Your task to perform on an android device: Clear the cart on bestbuy. Image 0: 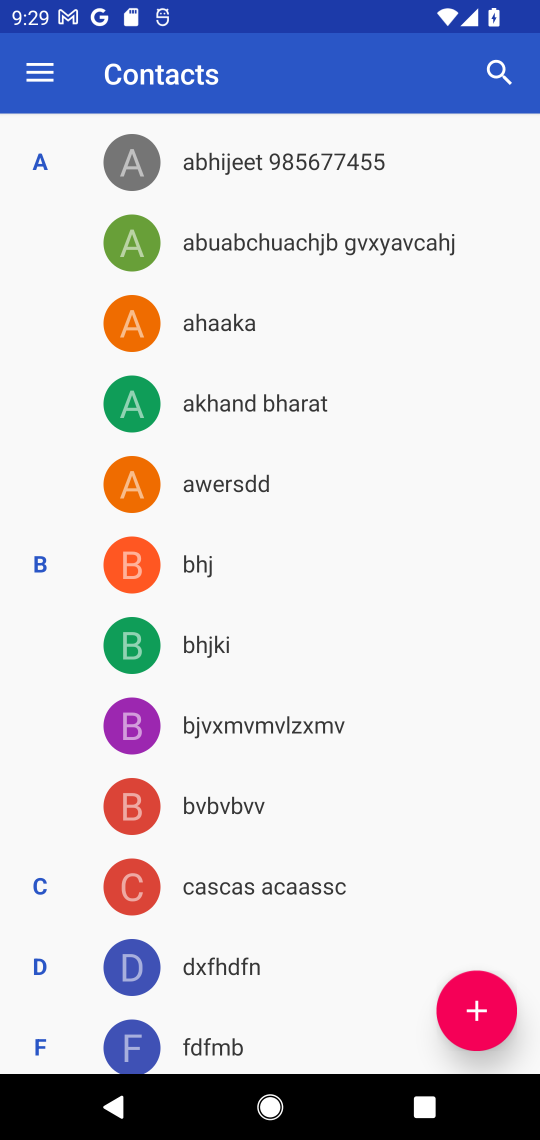
Step 0: press home button
Your task to perform on an android device: Clear the cart on bestbuy. Image 1: 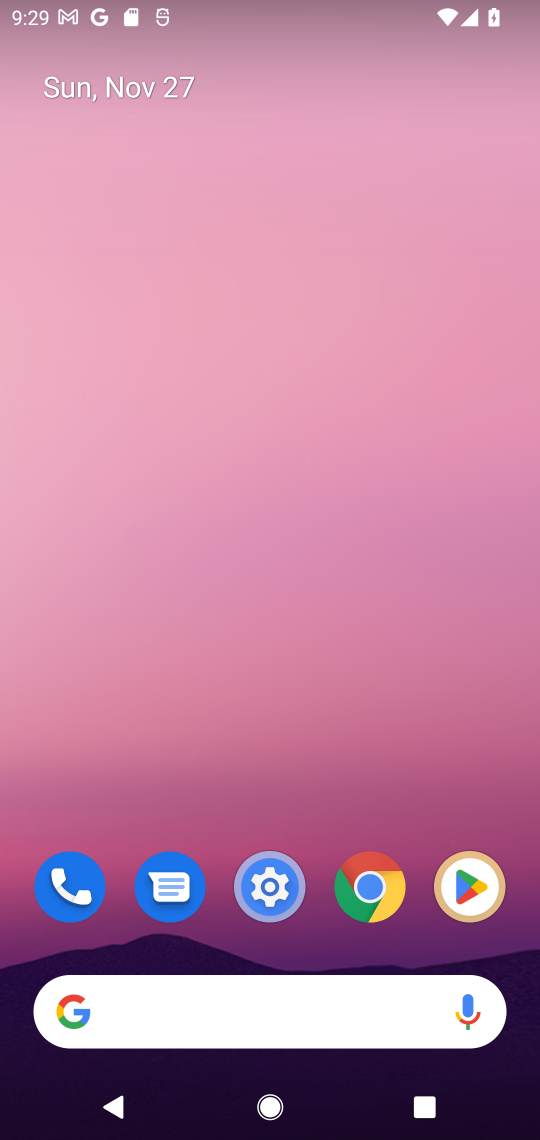
Step 1: click (363, 1012)
Your task to perform on an android device: Clear the cart on bestbuy. Image 2: 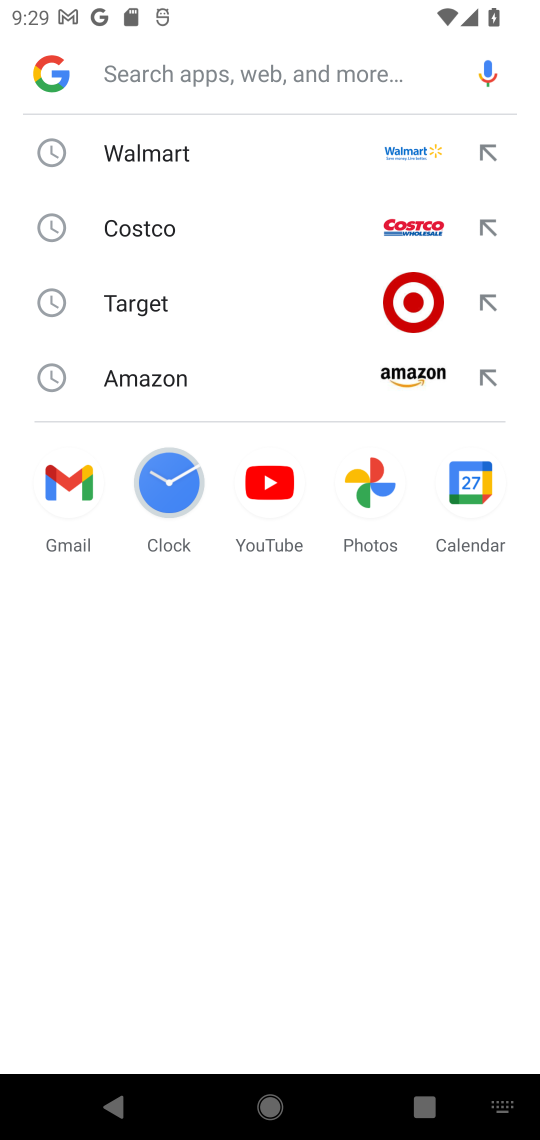
Step 2: type "wbestbuy"
Your task to perform on an android device: Clear the cart on bestbuy. Image 3: 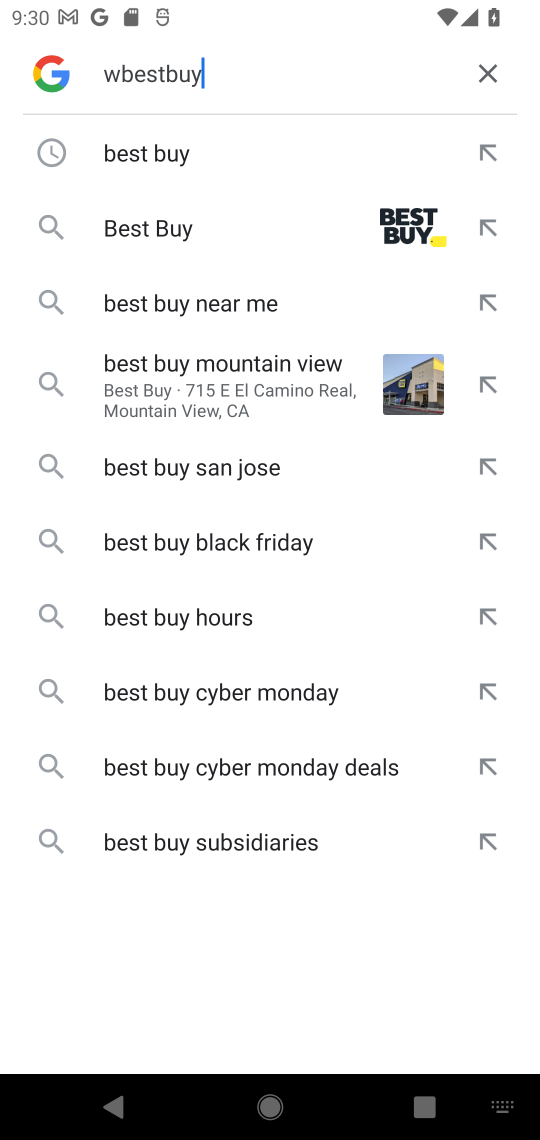
Step 3: click (213, 237)
Your task to perform on an android device: Clear the cart on bestbuy. Image 4: 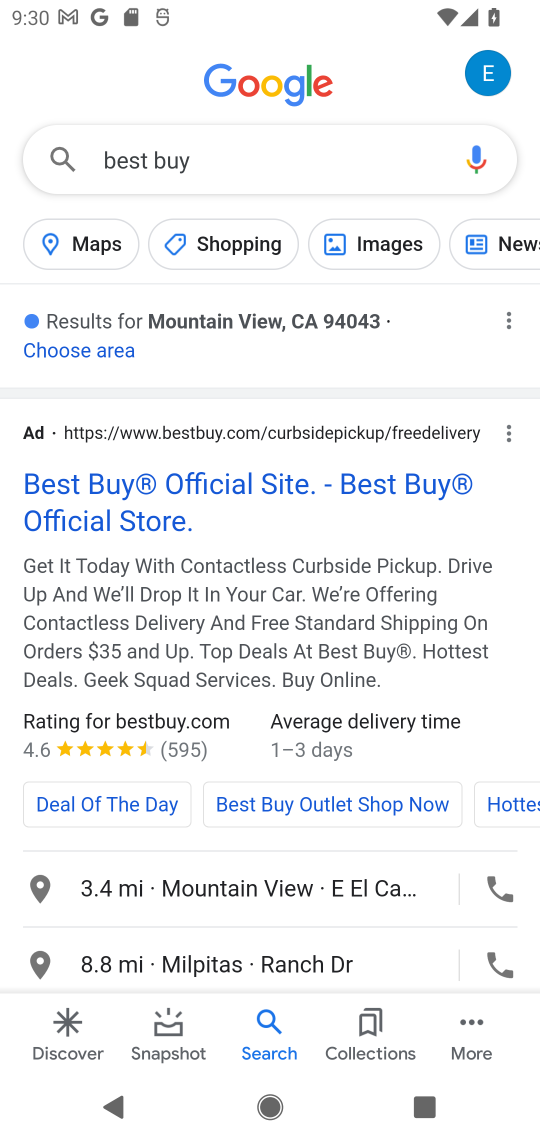
Step 4: click (159, 495)
Your task to perform on an android device: Clear the cart on bestbuy. Image 5: 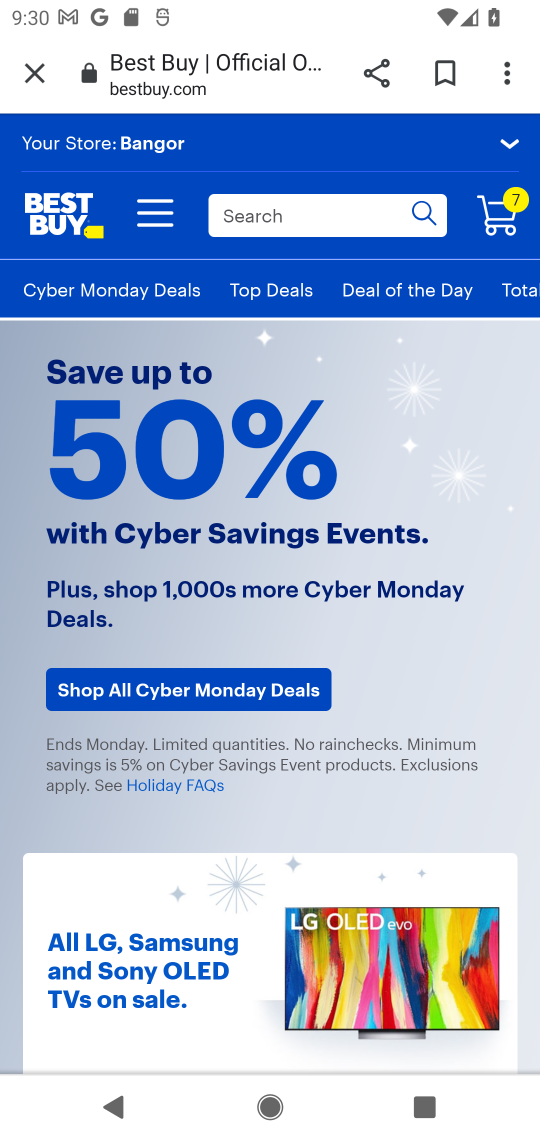
Step 5: click (324, 206)
Your task to perform on an android device: Clear the cart on bestbuy. Image 6: 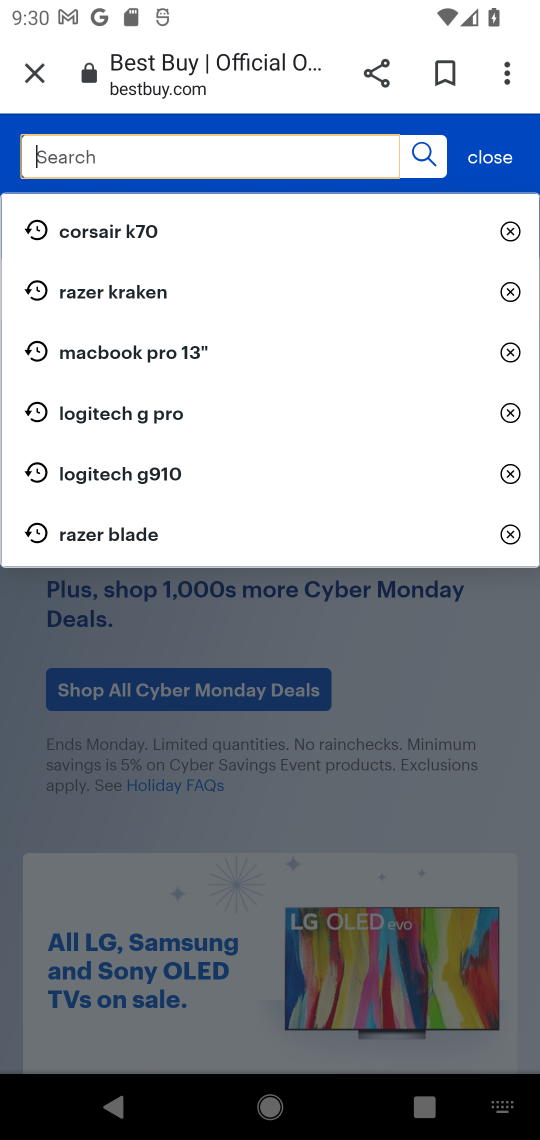
Step 6: click (461, 683)
Your task to perform on an android device: Clear the cart on bestbuy. Image 7: 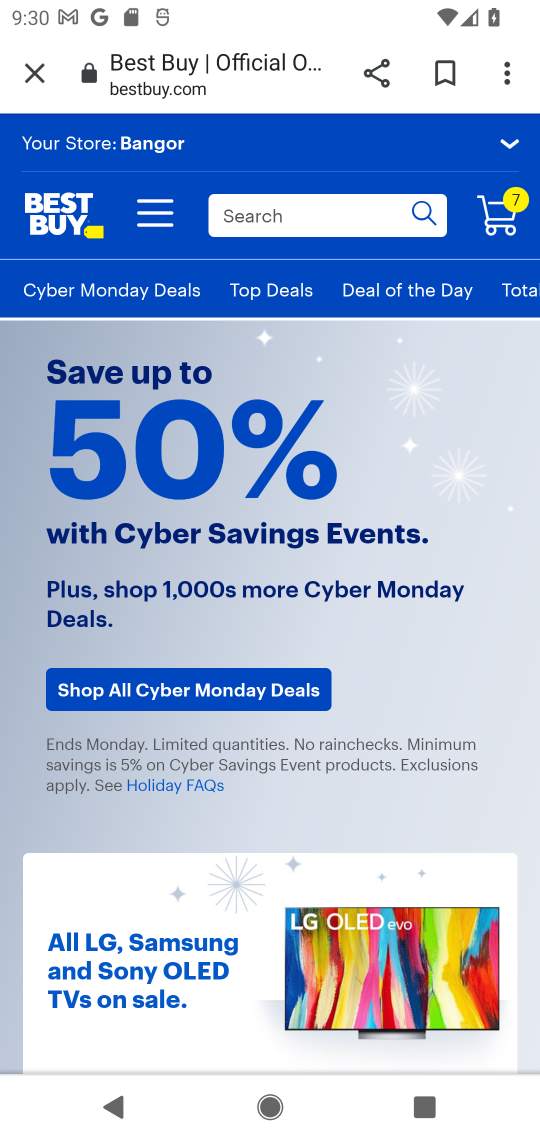
Step 7: click (491, 233)
Your task to perform on an android device: Clear the cart on bestbuy. Image 8: 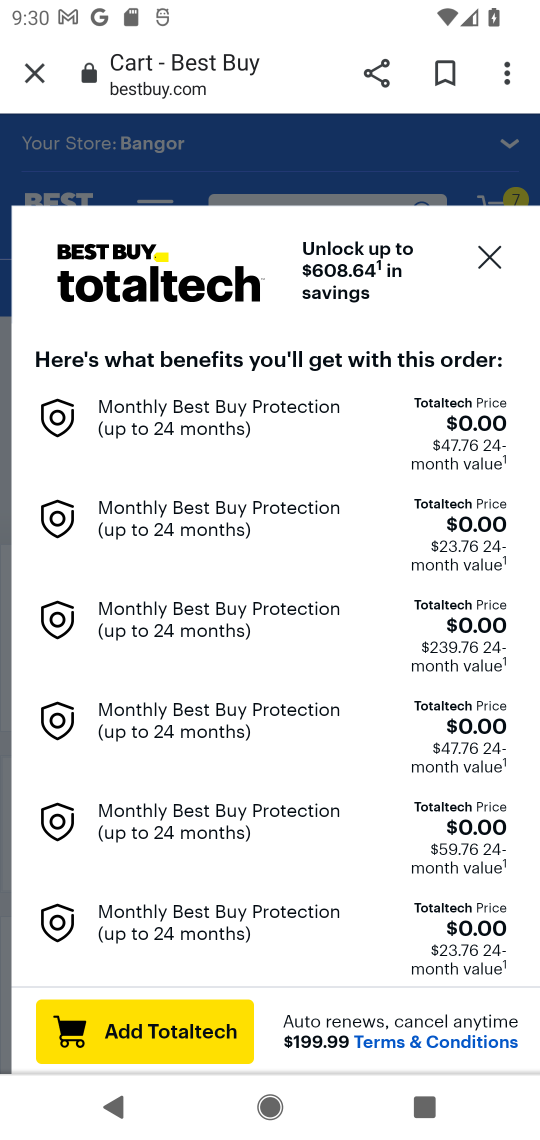
Step 8: click (482, 258)
Your task to perform on an android device: Clear the cart on bestbuy. Image 9: 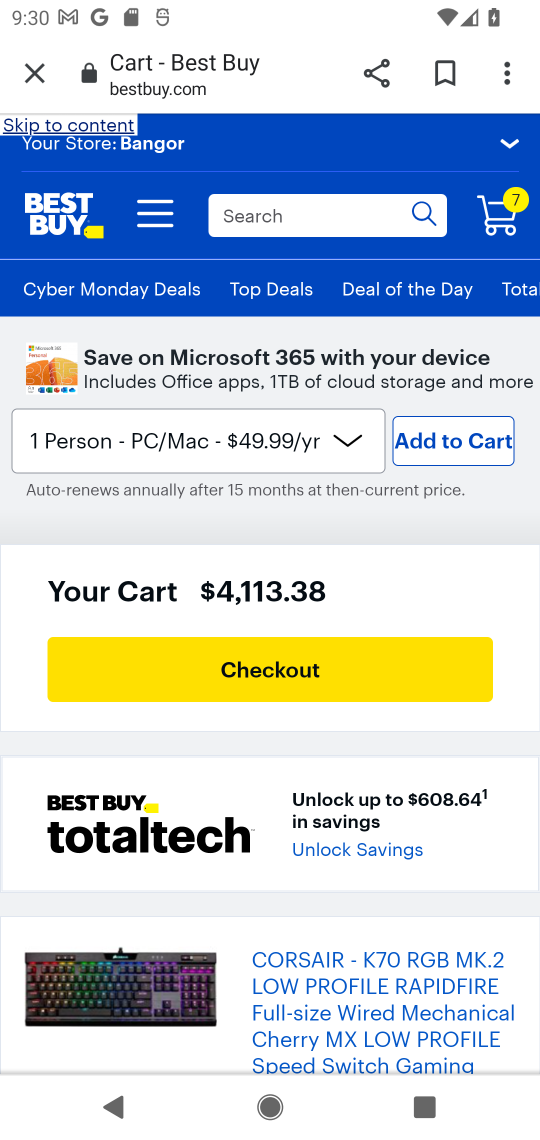
Step 9: drag from (286, 900) to (291, 535)
Your task to perform on an android device: Clear the cart on bestbuy. Image 10: 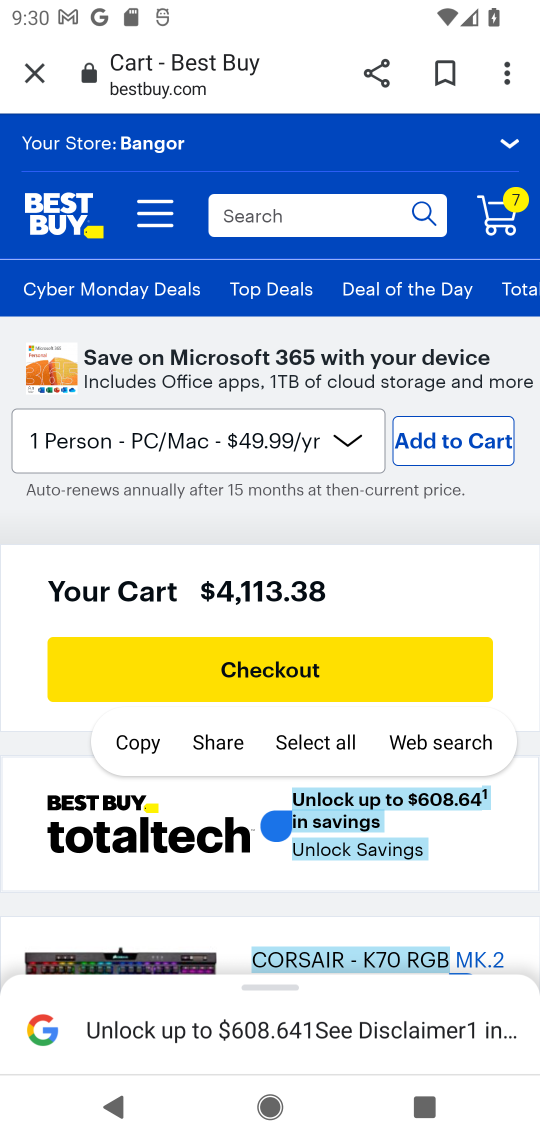
Step 10: click (38, 742)
Your task to perform on an android device: Clear the cart on bestbuy. Image 11: 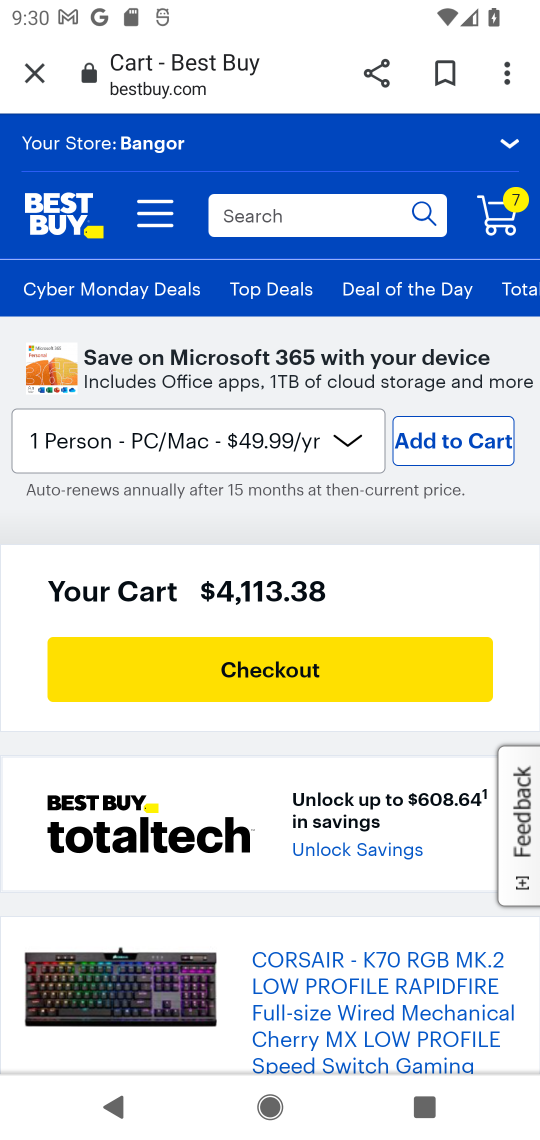
Step 11: drag from (38, 742) to (119, 373)
Your task to perform on an android device: Clear the cart on bestbuy. Image 12: 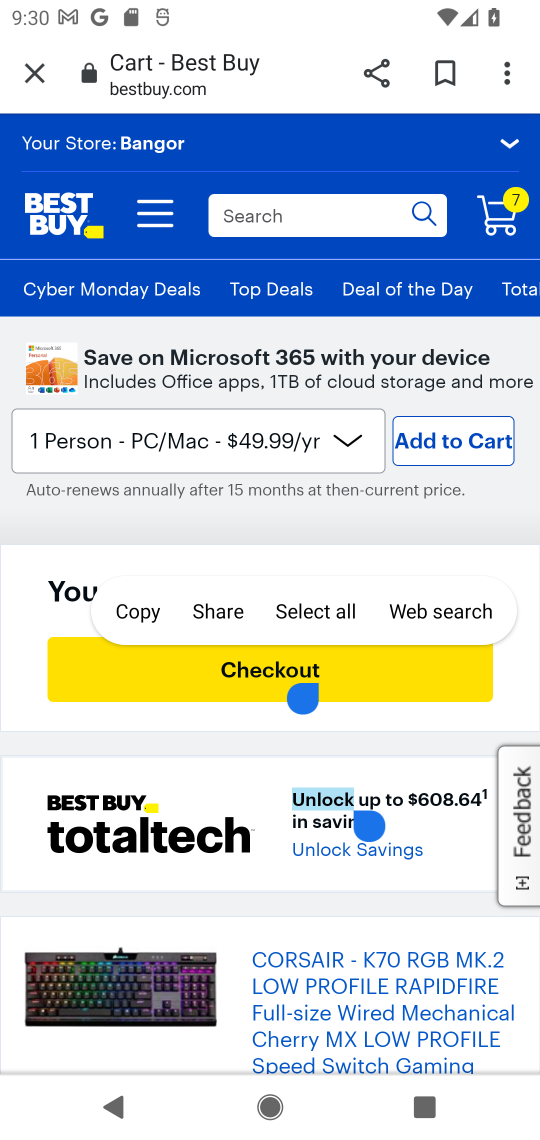
Step 12: click (266, 904)
Your task to perform on an android device: Clear the cart on bestbuy. Image 13: 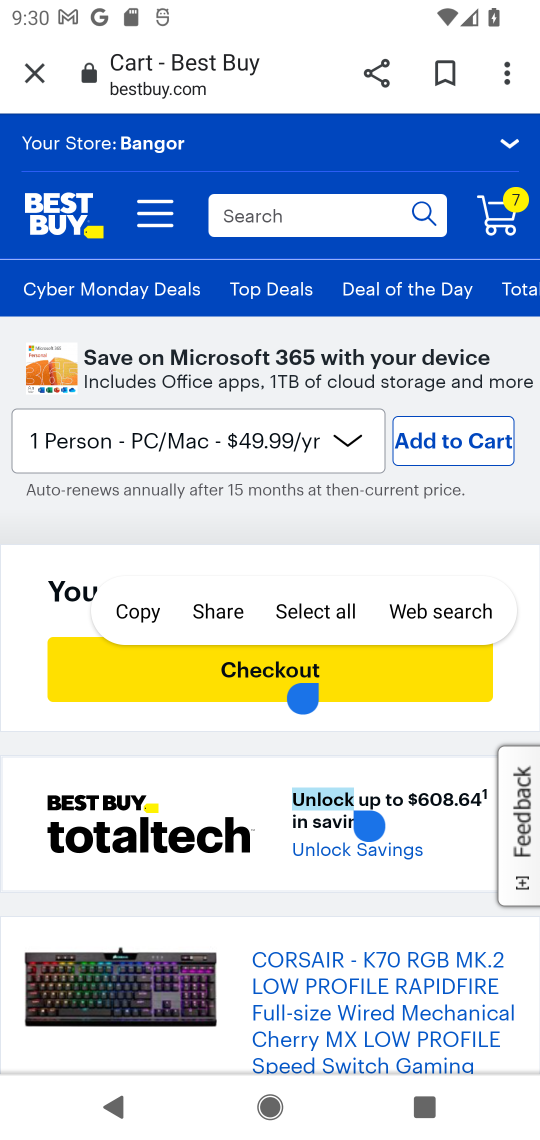
Step 13: drag from (266, 904) to (266, 371)
Your task to perform on an android device: Clear the cart on bestbuy. Image 14: 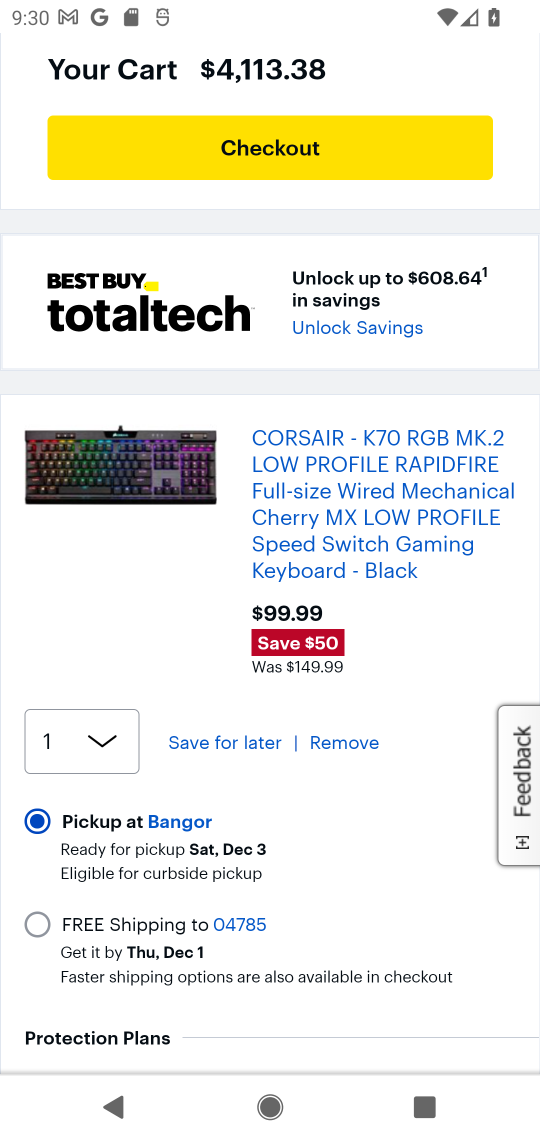
Step 14: click (367, 737)
Your task to perform on an android device: Clear the cart on bestbuy. Image 15: 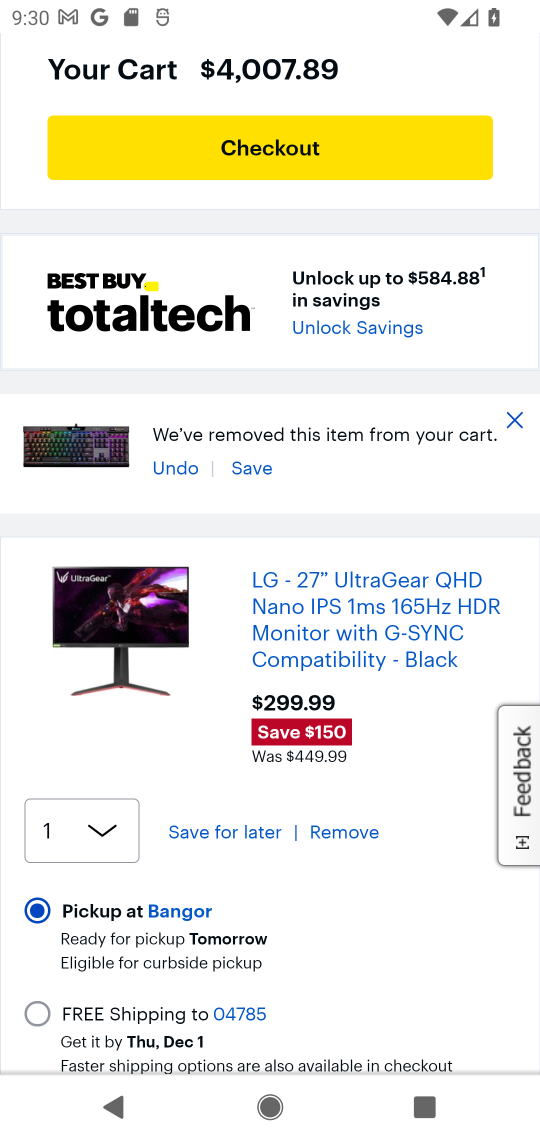
Step 15: click (362, 832)
Your task to perform on an android device: Clear the cart on bestbuy. Image 16: 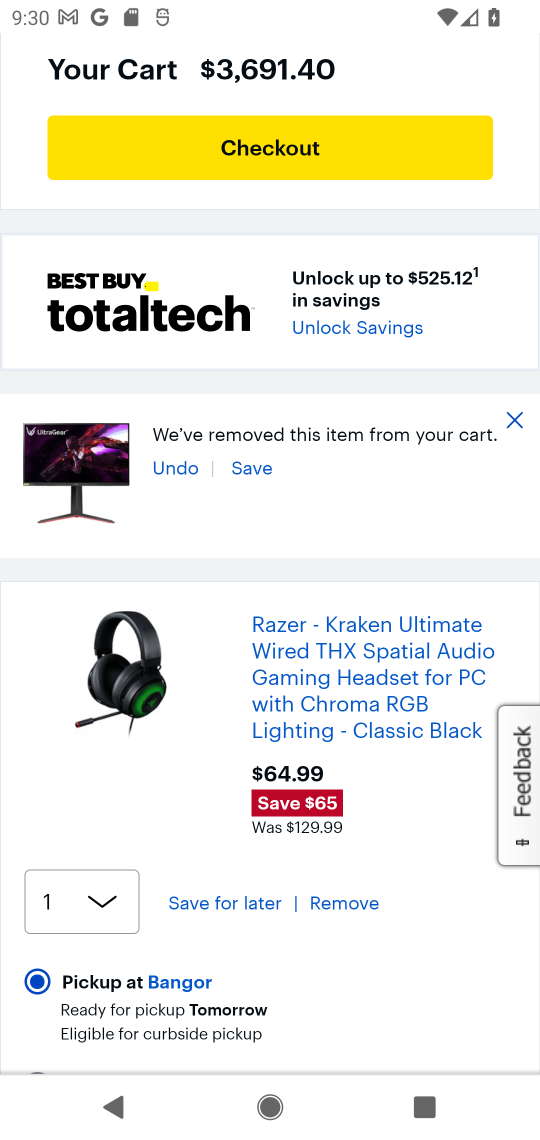
Step 16: click (353, 893)
Your task to perform on an android device: Clear the cart on bestbuy. Image 17: 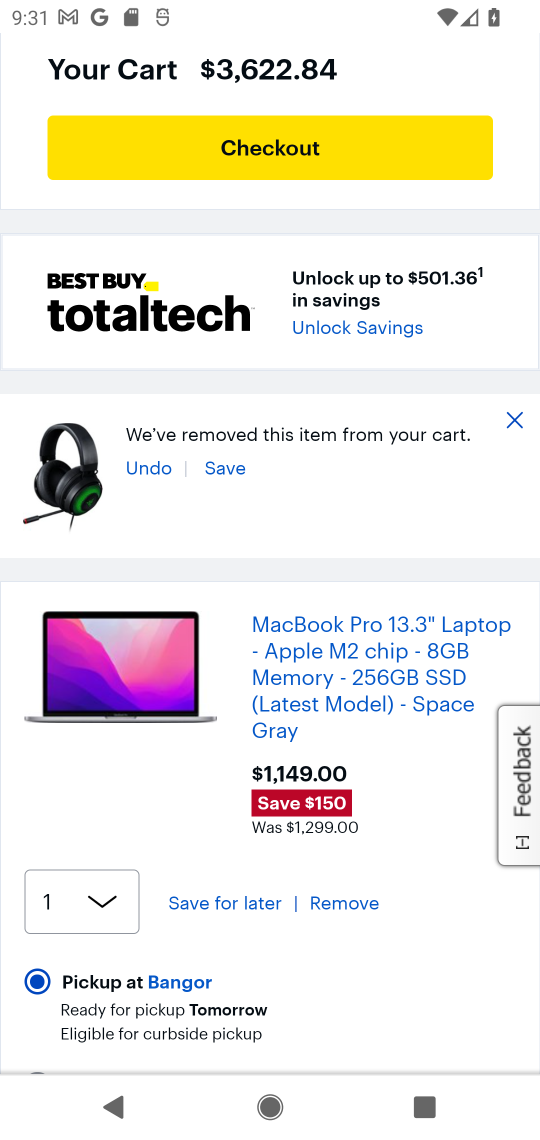
Step 17: click (353, 904)
Your task to perform on an android device: Clear the cart on bestbuy. Image 18: 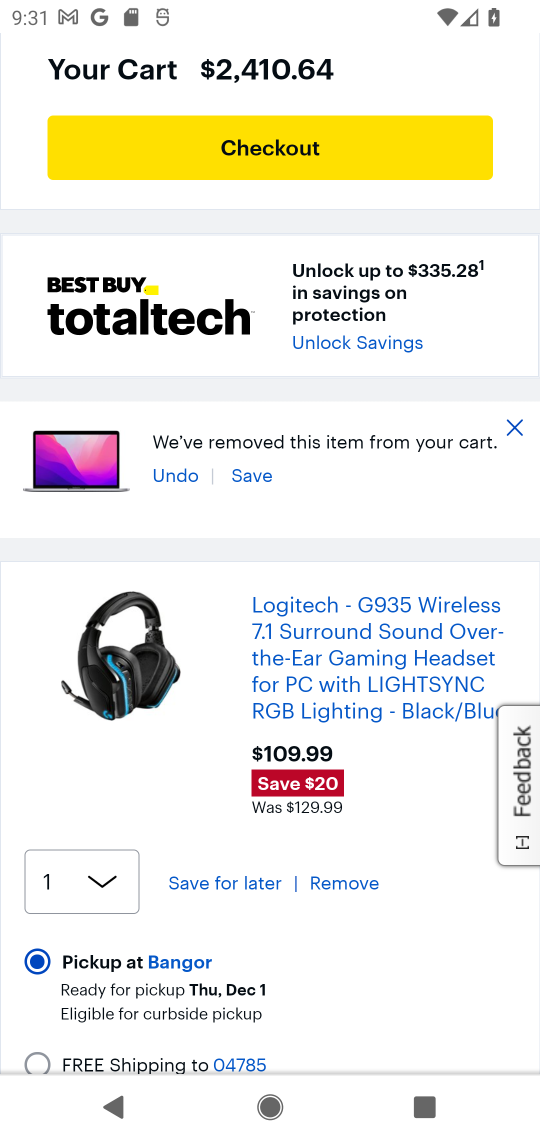
Step 18: click (346, 890)
Your task to perform on an android device: Clear the cart on bestbuy. Image 19: 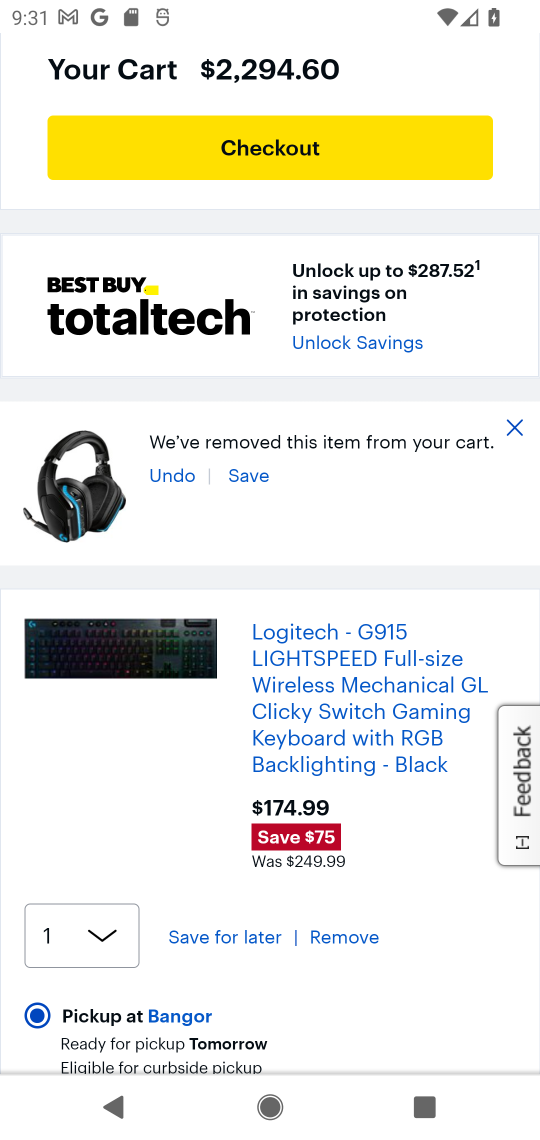
Step 19: click (353, 945)
Your task to perform on an android device: Clear the cart on bestbuy. Image 20: 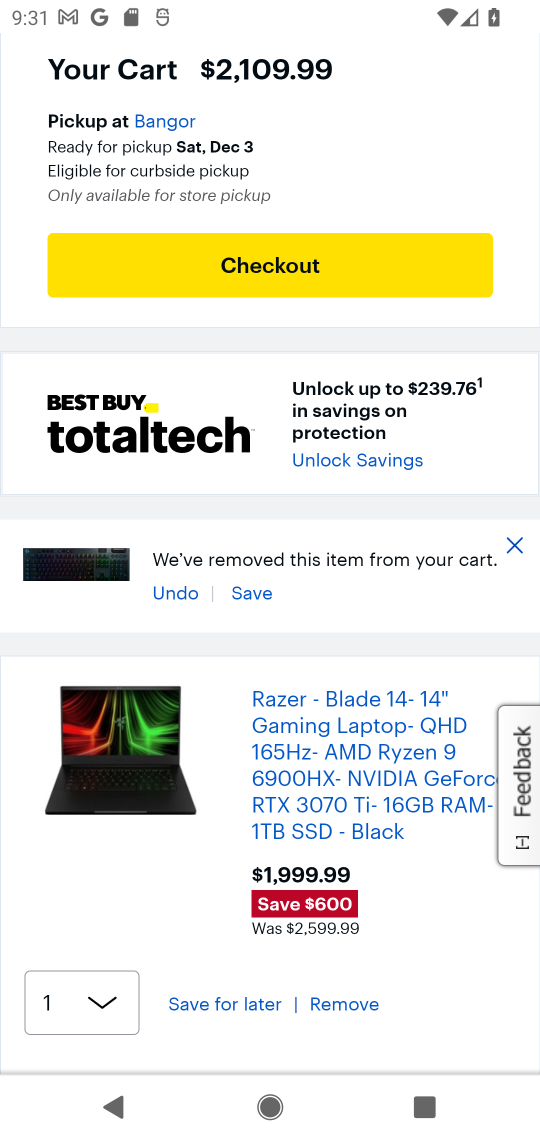
Step 20: click (348, 1002)
Your task to perform on an android device: Clear the cart on bestbuy. Image 21: 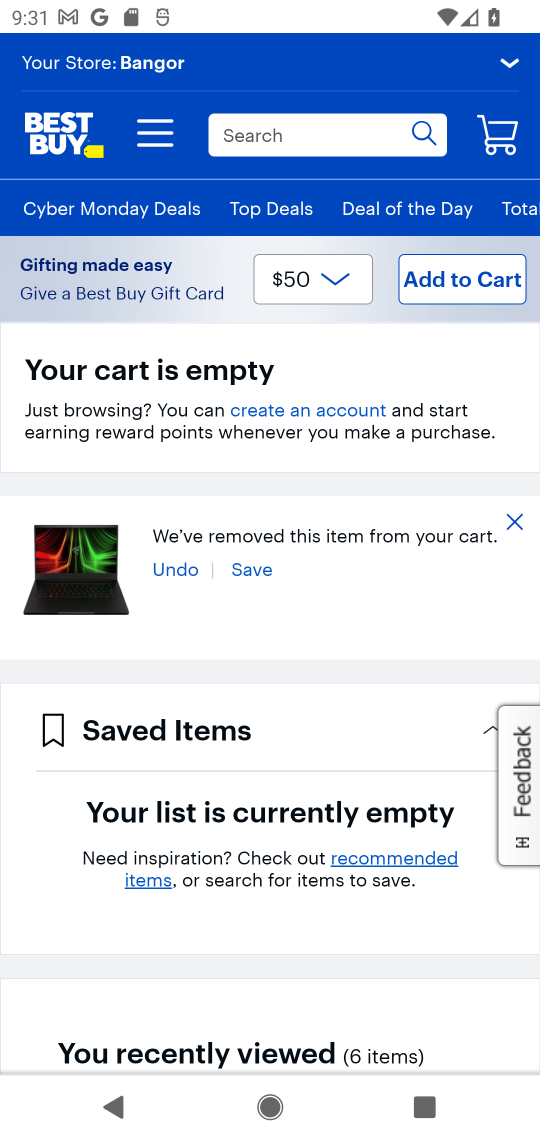
Step 21: task complete